Your task to perform on an android device: delete location history Image 0: 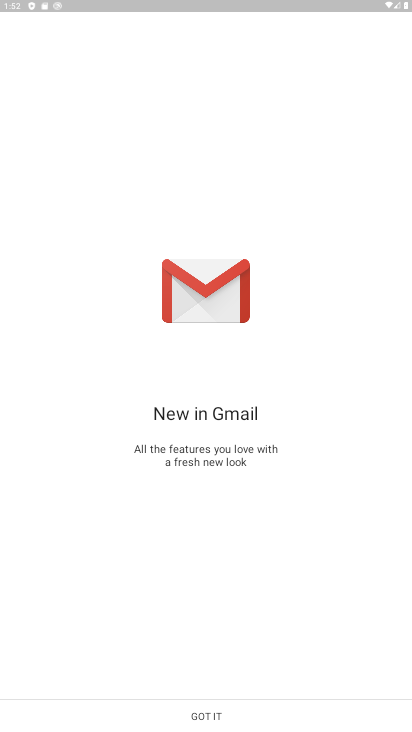
Step 0: press home button
Your task to perform on an android device: delete location history Image 1: 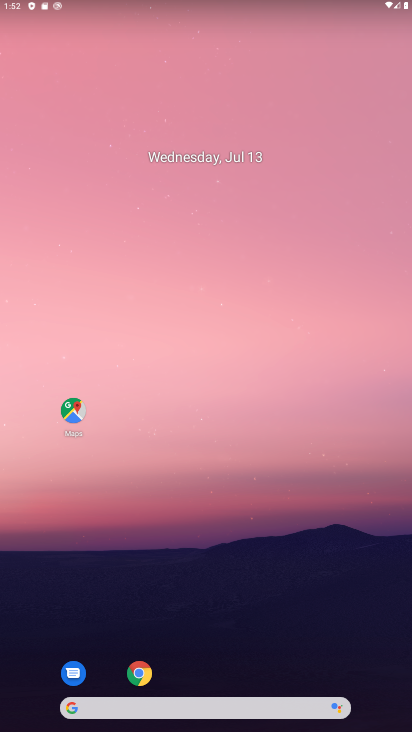
Step 1: click (72, 412)
Your task to perform on an android device: delete location history Image 2: 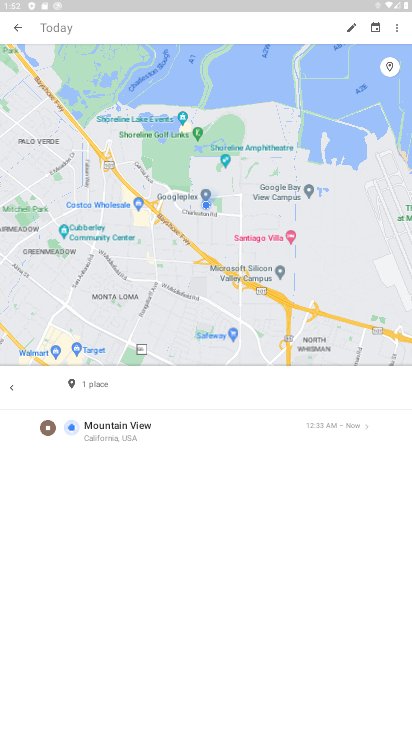
Step 2: click (394, 35)
Your task to perform on an android device: delete location history Image 3: 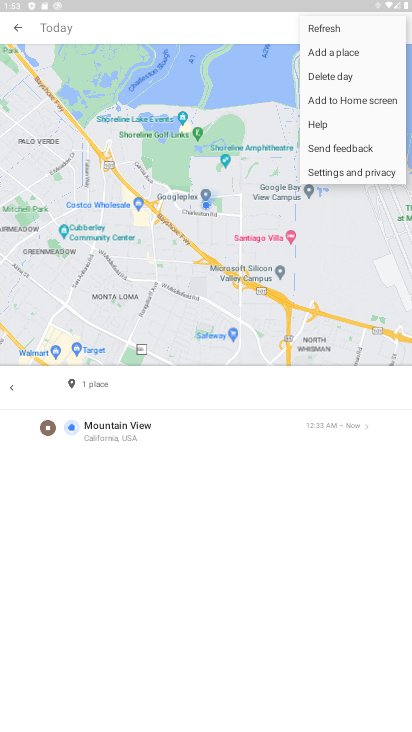
Step 3: click (356, 167)
Your task to perform on an android device: delete location history Image 4: 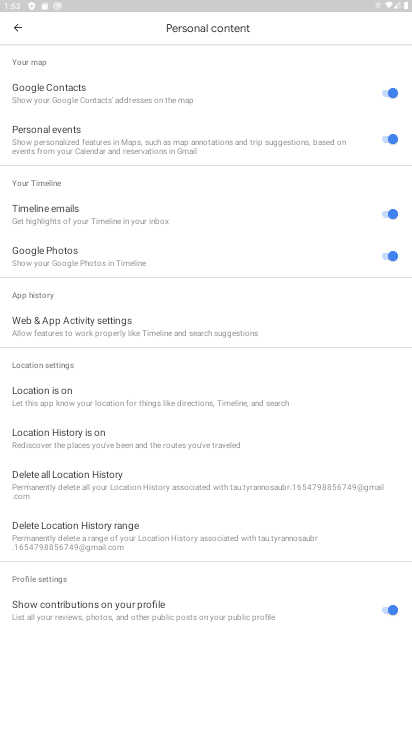
Step 4: click (67, 474)
Your task to perform on an android device: delete location history Image 5: 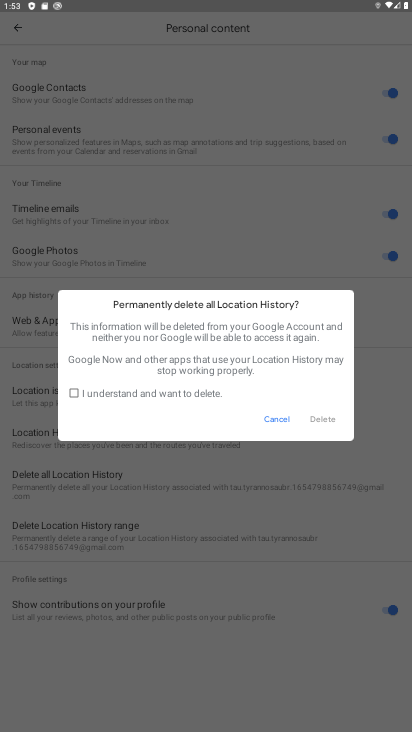
Step 5: click (76, 395)
Your task to perform on an android device: delete location history Image 6: 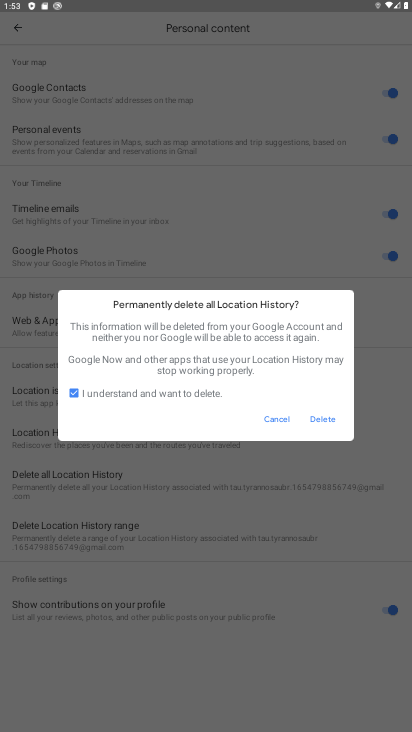
Step 6: click (321, 416)
Your task to perform on an android device: delete location history Image 7: 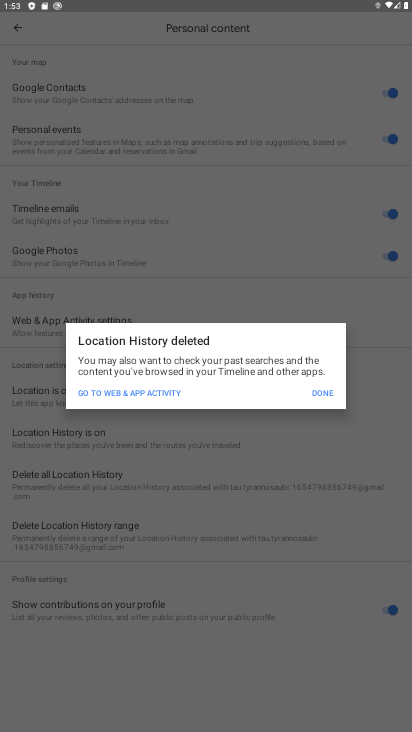
Step 7: click (324, 397)
Your task to perform on an android device: delete location history Image 8: 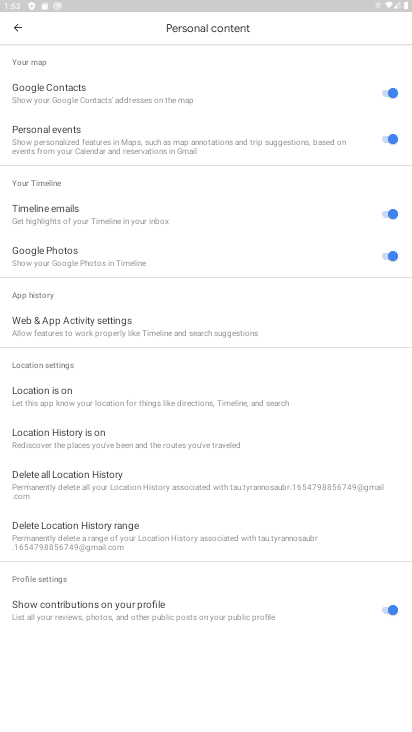
Step 8: task complete